Your task to perform on an android device: turn notification dots off Image 0: 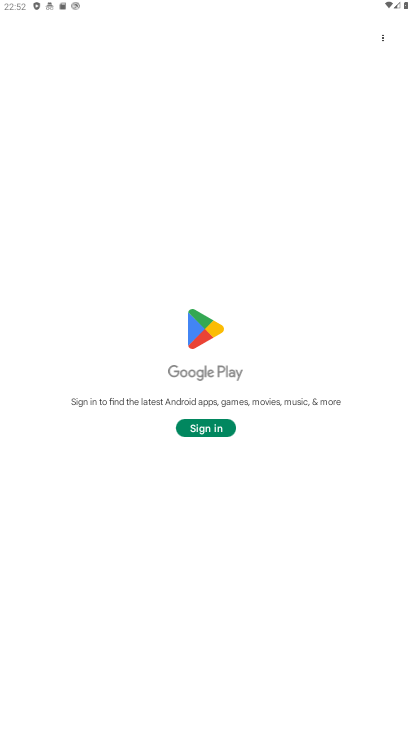
Step 0: drag from (264, 708) to (203, 267)
Your task to perform on an android device: turn notification dots off Image 1: 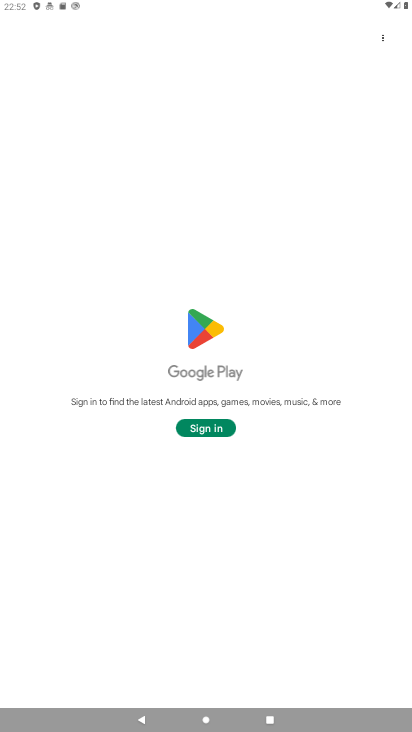
Step 1: press back button
Your task to perform on an android device: turn notification dots off Image 2: 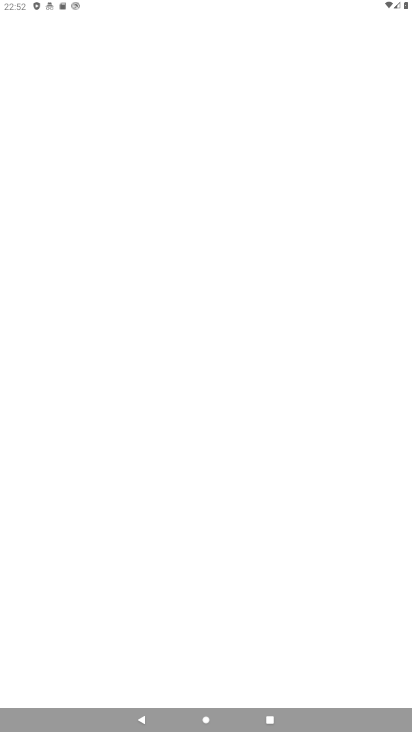
Step 2: press back button
Your task to perform on an android device: turn notification dots off Image 3: 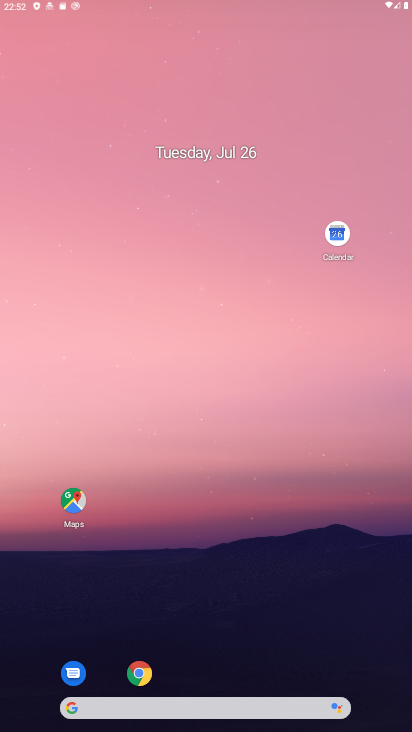
Step 3: press back button
Your task to perform on an android device: turn notification dots off Image 4: 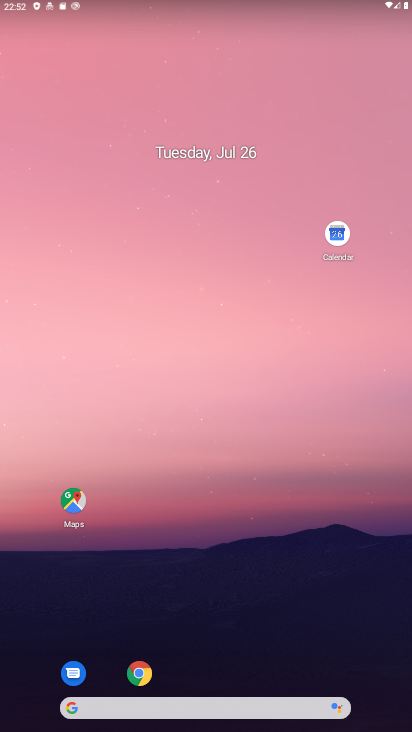
Step 4: drag from (206, 476) to (166, 76)
Your task to perform on an android device: turn notification dots off Image 5: 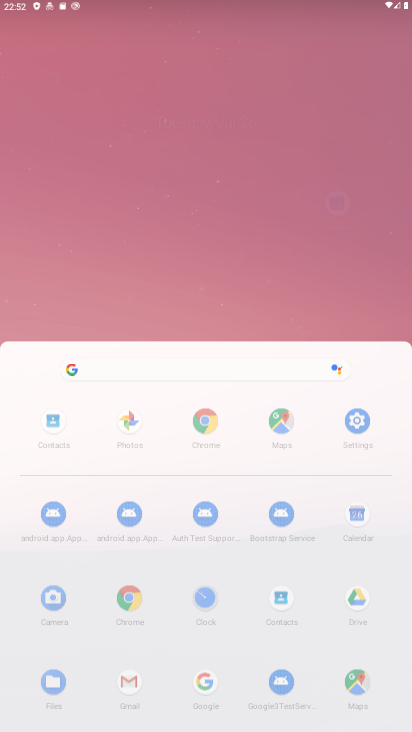
Step 5: drag from (235, 488) to (175, 79)
Your task to perform on an android device: turn notification dots off Image 6: 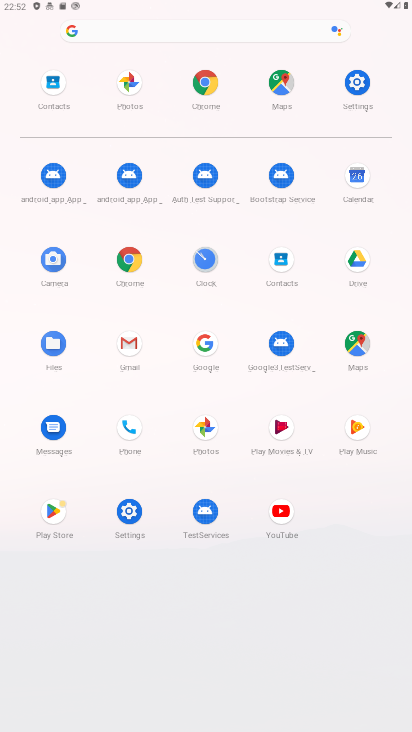
Step 6: click (353, 80)
Your task to perform on an android device: turn notification dots off Image 7: 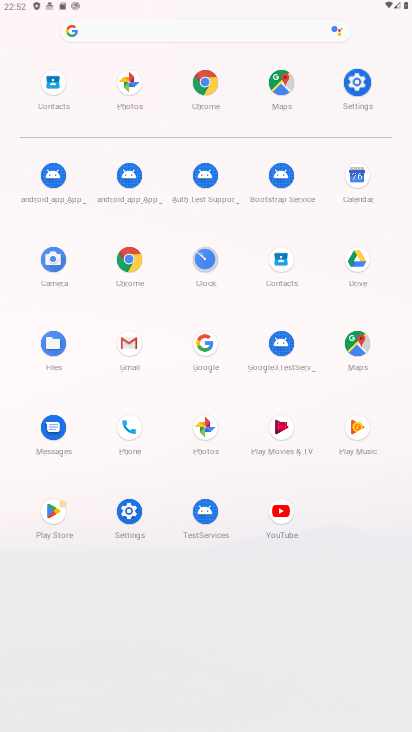
Step 7: click (355, 80)
Your task to perform on an android device: turn notification dots off Image 8: 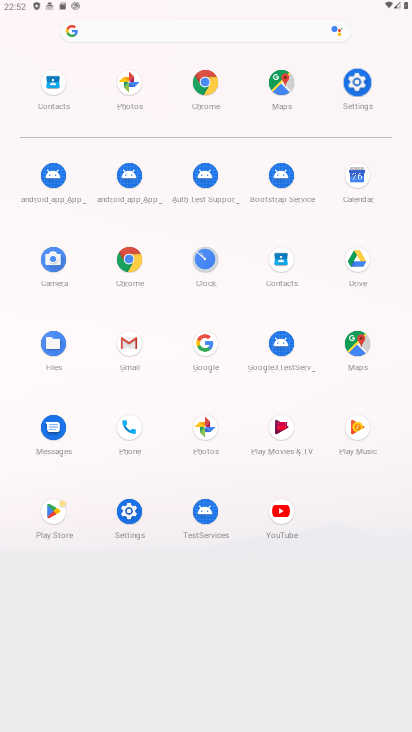
Step 8: click (355, 80)
Your task to perform on an android device: turn notification dots off Image 9: 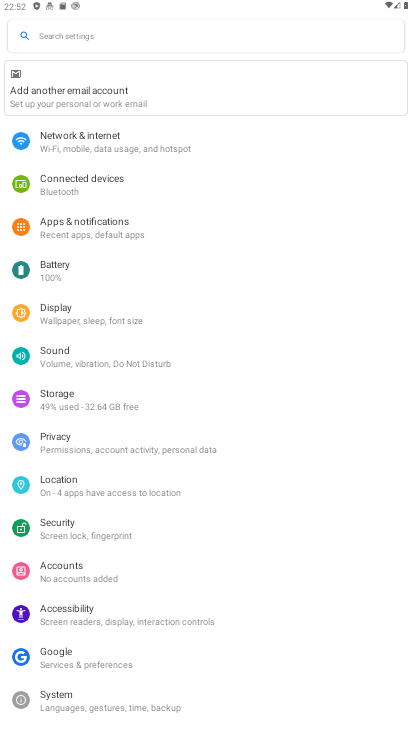
Step 9: click (89, 234)
Your task to perform on an android device: turn notification dots off Image 10: 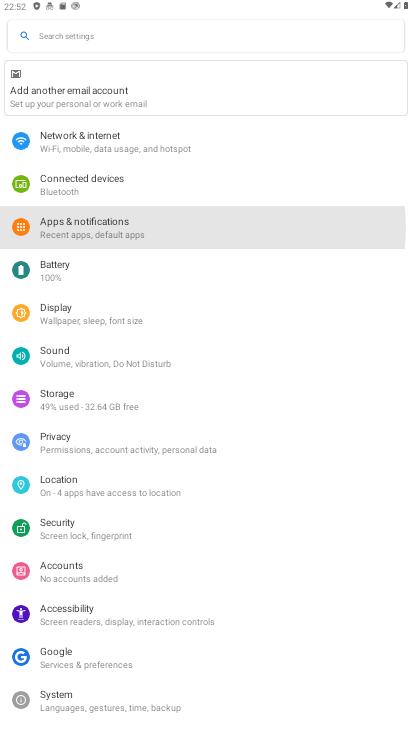
Step 10: click (92, 230)
Your task to perform on an android device: turn notification dots off Image 11: 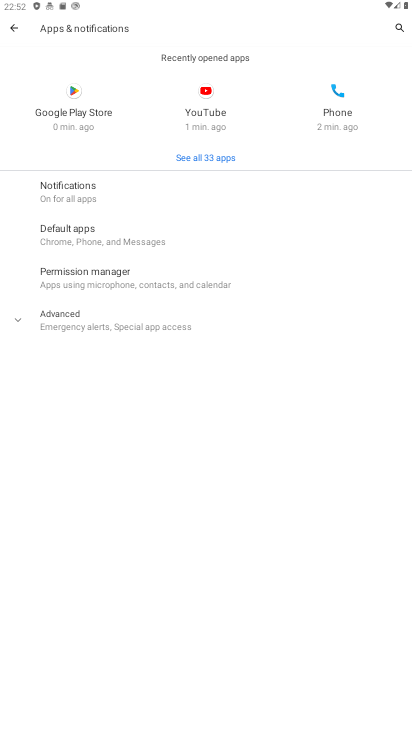
Step 11: click (70, 320)
Your task to perform on an android device: turn notification dots off Image 12: 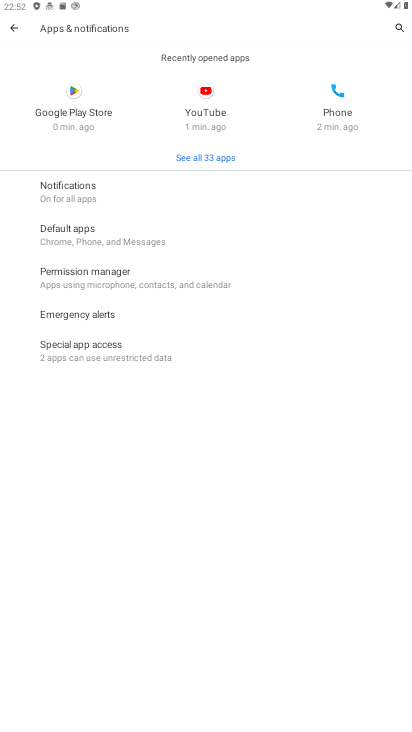
Step 12: click (69, 190)
Your task to perform on an android device: turn notification dots off Image 13: 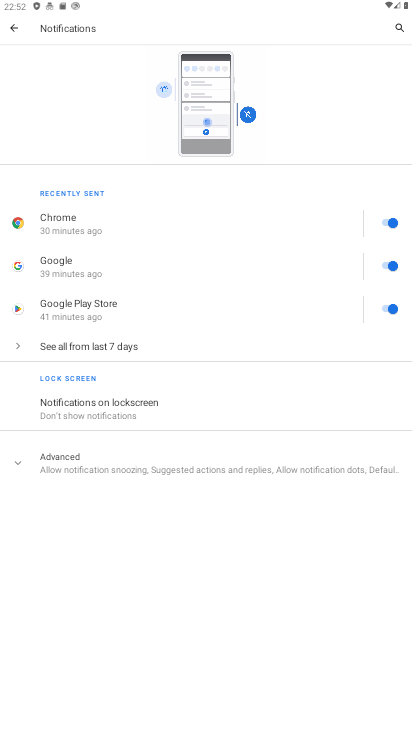
Step 13: click (87, 470)
Your task to perform on an android device: turn notification dots off Image 14: 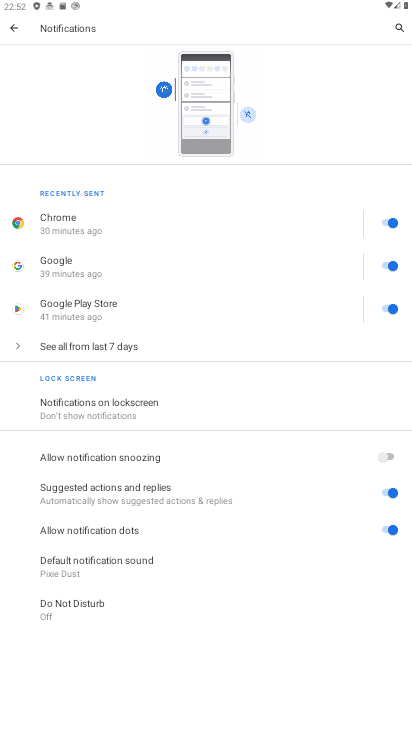
Step 14: drag from (193, 503) to (202, 148)
Your task to perform on an android device: turn notification dots off Image 15: 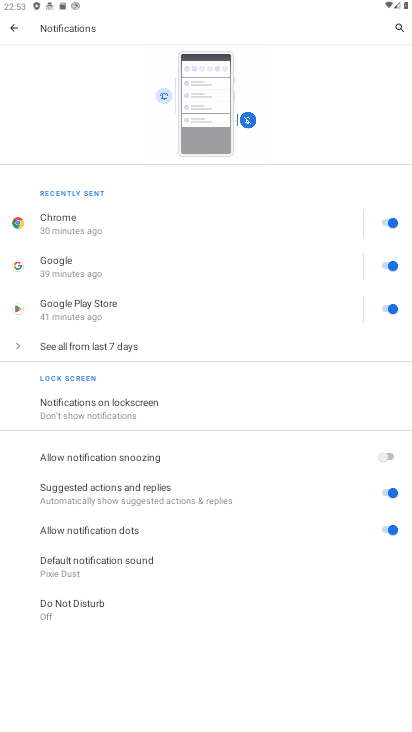
Step 15: click (395, 523)
Your task to perform on an android device: turn notification dots off Image 16: 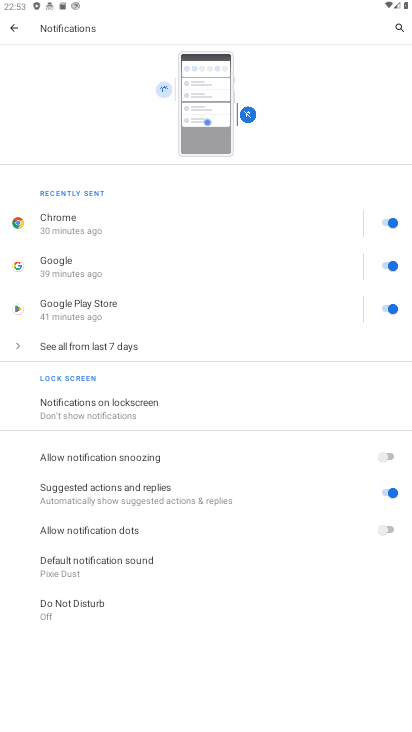
Step 16: task complete